Your task to perform on an android device: check out phone information Image 0: 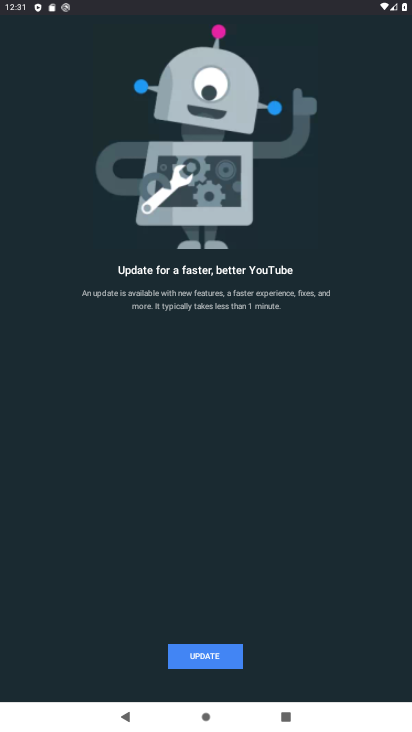
Step 0: press home button
Your task to perform on an android device: check out phone information Image 1: 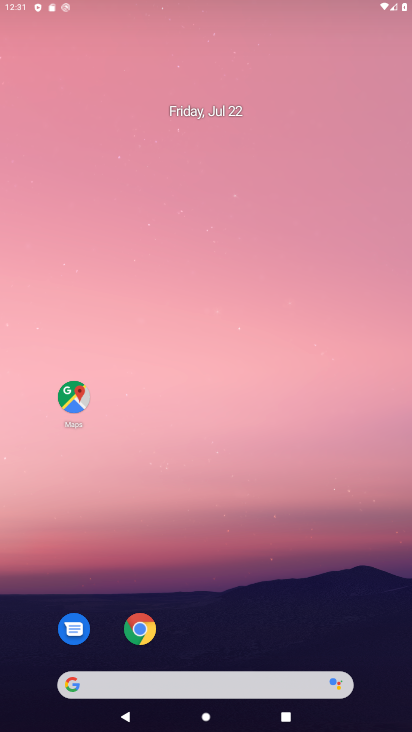
Step 1: drag from (210, 652) to (211, 86)
Your task to perform on an android device: check out phone information Image 2: 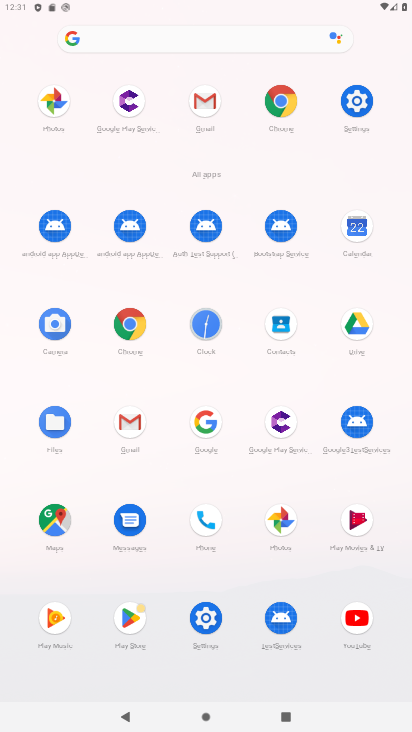
Step 2: click (358, 96)
Your task to perform on an android device: check out phone information Image 3: 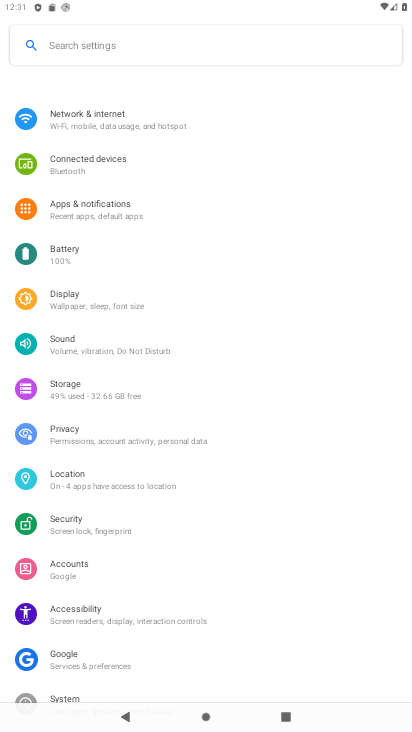
Step 3: drag from (125, 654) to (174, 100)
Your task to perform on an android device: check out phone information Image 4: 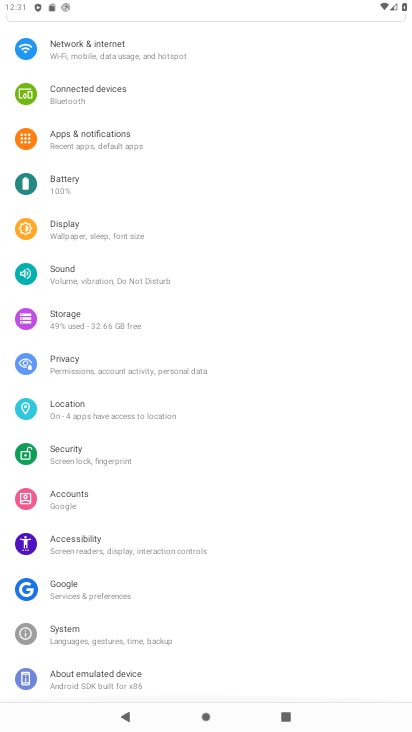
Step 4: click (112, 681)
Your task to perform on an android device: check out phone information Image 5: 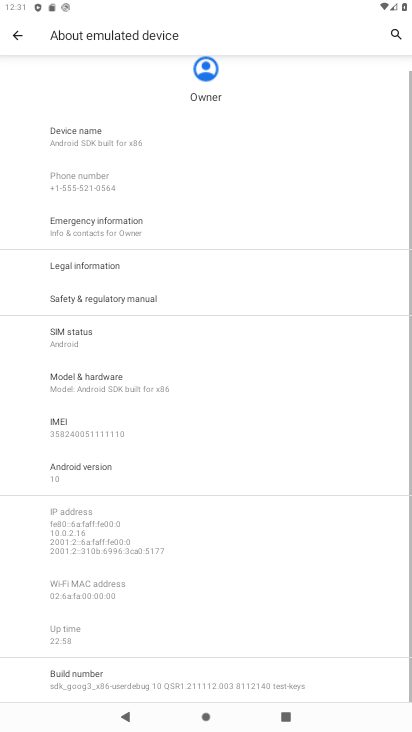
Step 5: task complete